Your task to perform on an android device: set the timer Image 0: 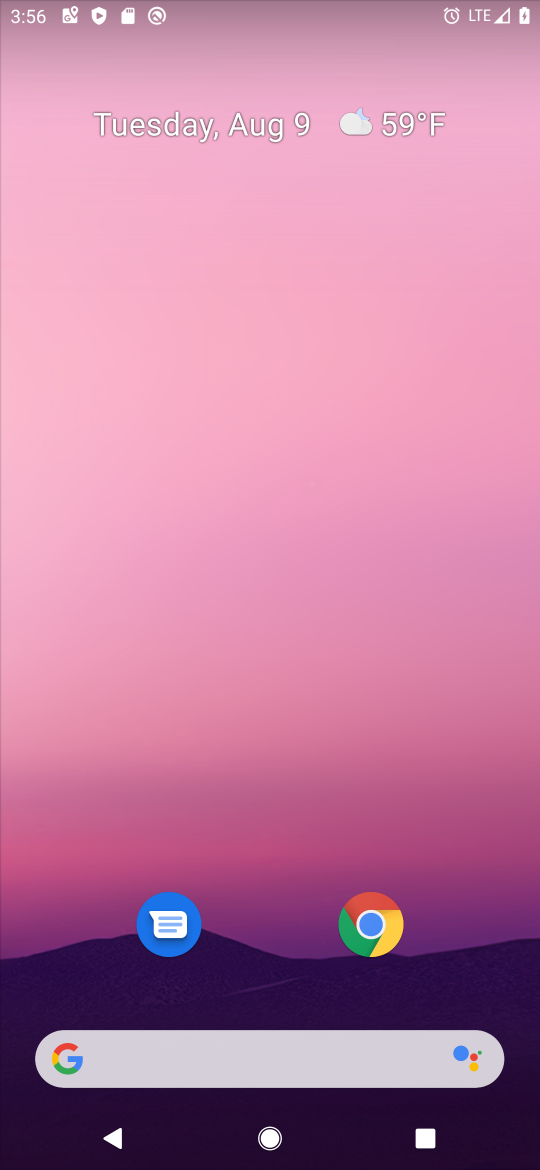
Step 0: drag from (264, 956) to (265, 0)
Your task to perform on an android device: set the timer Image 1: 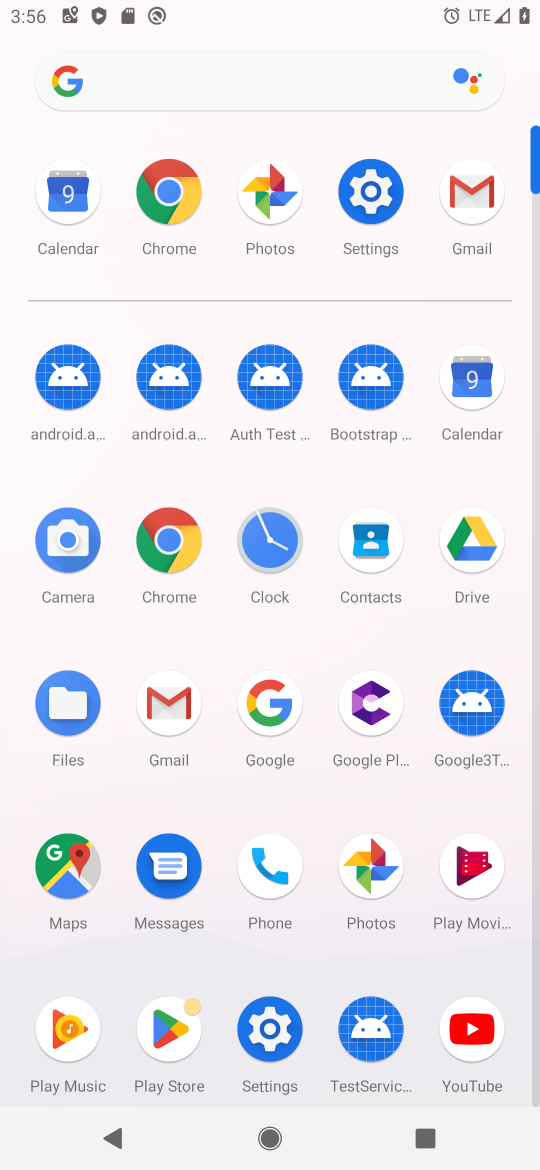
Step 1: click (270, 534)
Your task to perform on an android device: set the timer Image 2: 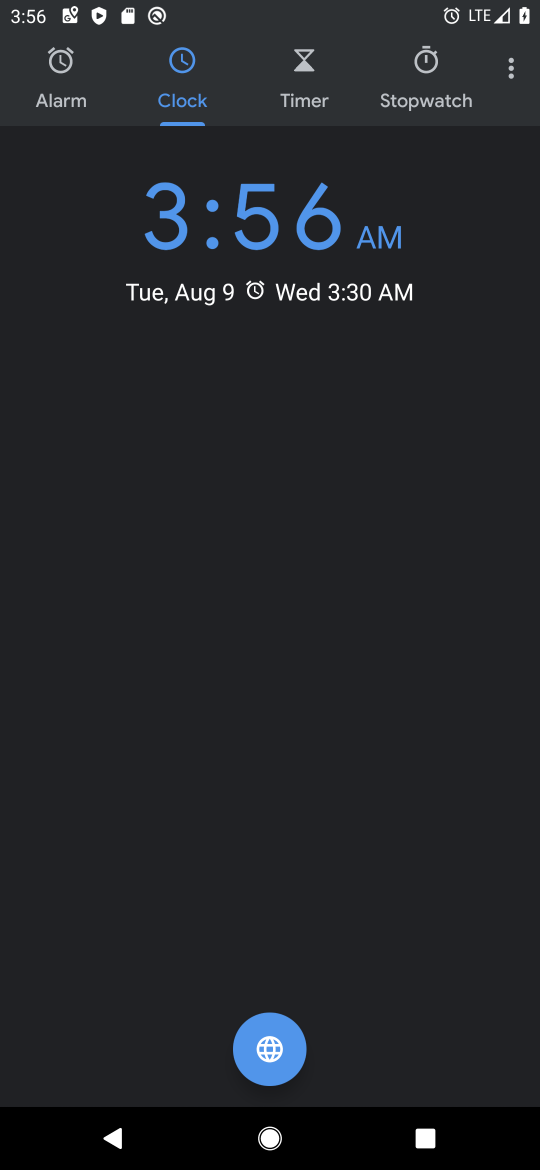
Step 2: click (307, 70)
Your task to perform on an android device: set the timer Image 3: 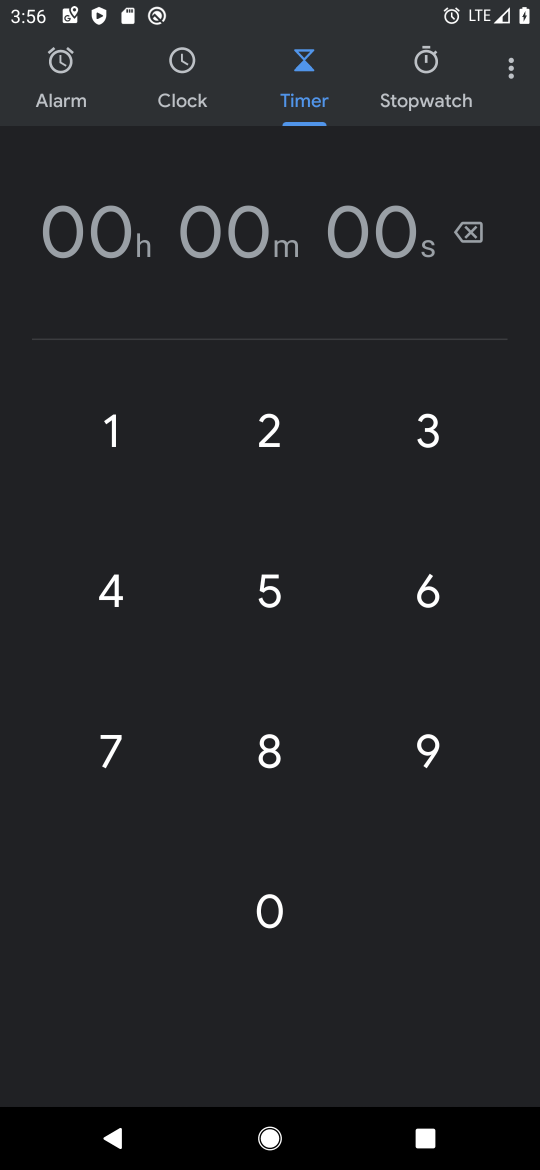
Step 3: task complete